Your task to perform on an android device: delete a single message in the gmail app Image 0: 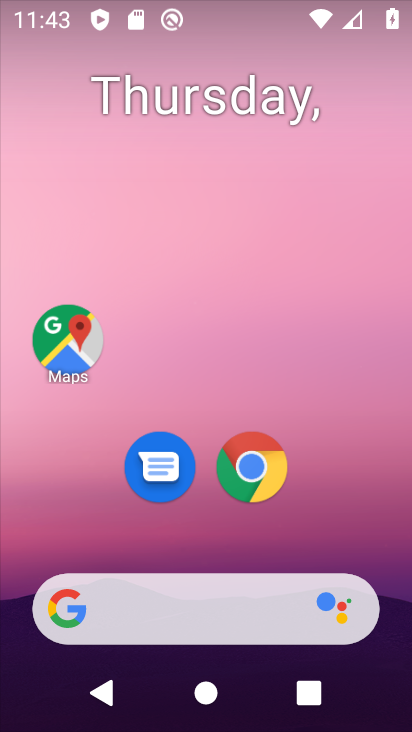
Step 0: drag from (349, 565) to (367, 10)
Your task to perform on an android device: delete a single message in the gmail app Image 1: 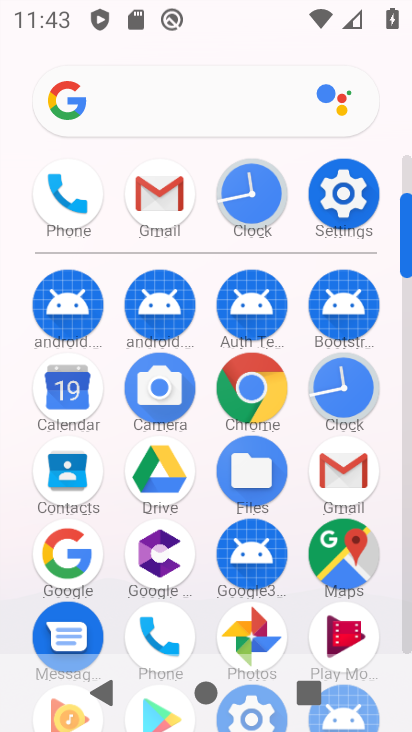
Step 1: click (158, 207)
Your task to perform on an android device: delete a single message in the gmail app Image 2: 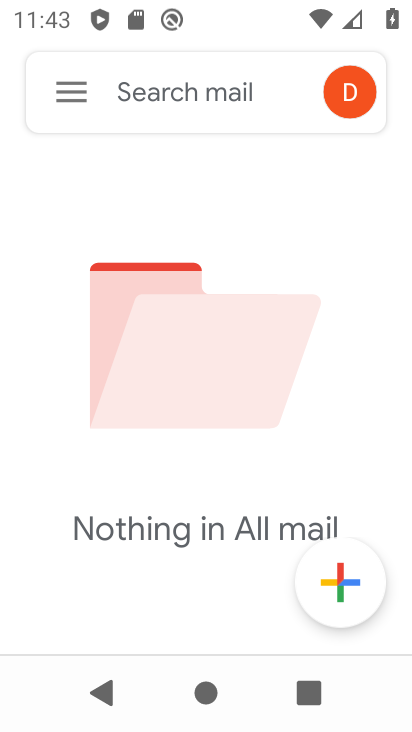
Step 2: task complete